Your task to perform on an android device: Find a nice sofa on eBay Image 0: 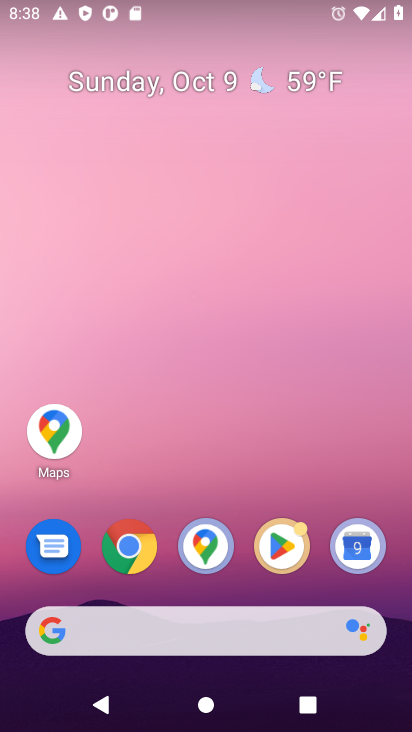
Step 0: click (133, 558)
Your task to perform on an android device: Find a nice sofa on eBay Image 1: 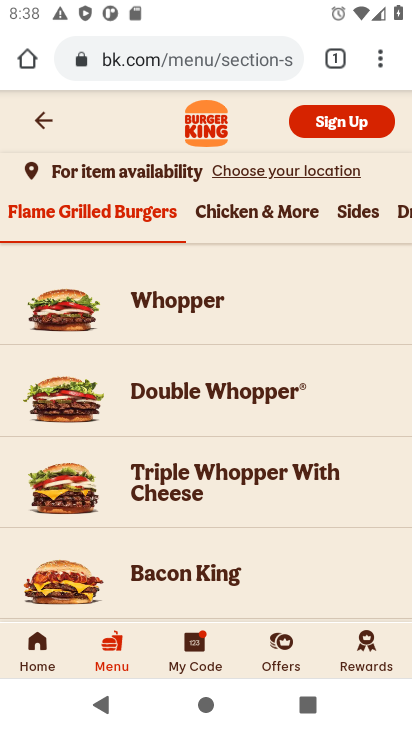
Step 1: click (231, 61)
Your task to perform on an android device: Find a nice sofa on eBay Image 2: 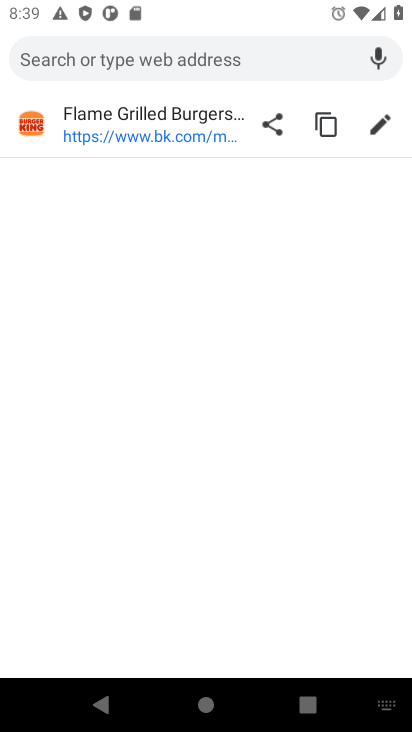
Step 2: type "ebay"
Your task to perform on an android device: Find a nice sofa on eBay Image 3: 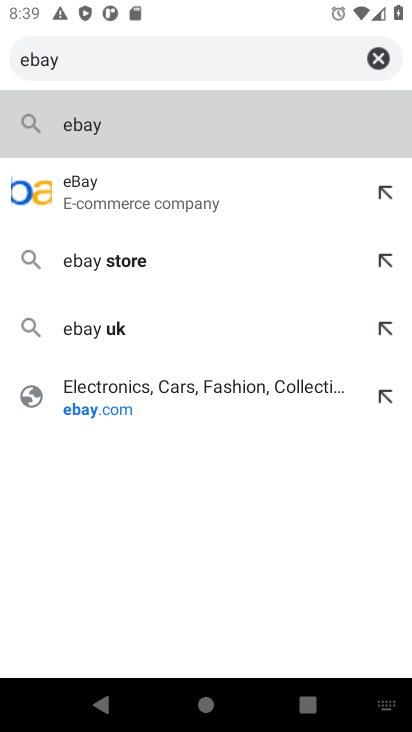
Step 3: type ""
Your task to perform on an android device: Find a nice sofa on eBay Image 4: 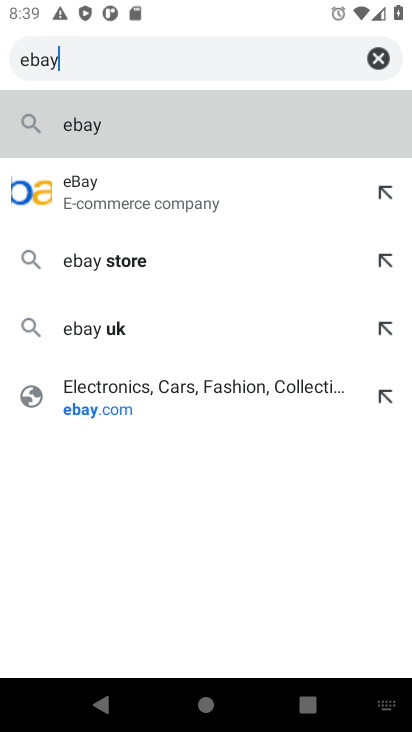
Step 4: press enter
Your task to perform on an android device: Find a nice sofa on eBay Image 5: 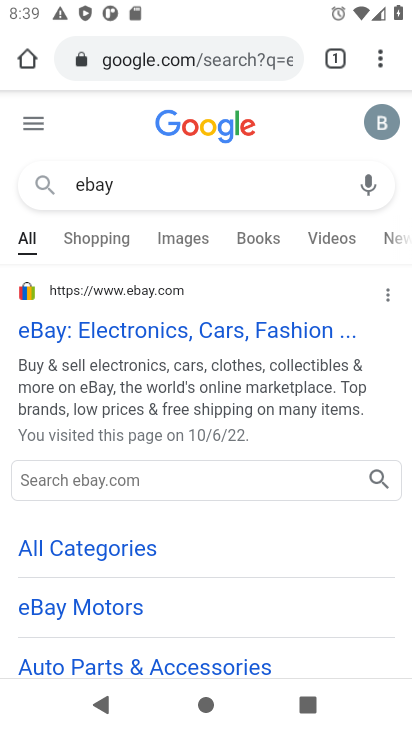
Step 5: click (116, 319)
Your task to perform on an android device: Find a nice sofa on eBay Image 6: 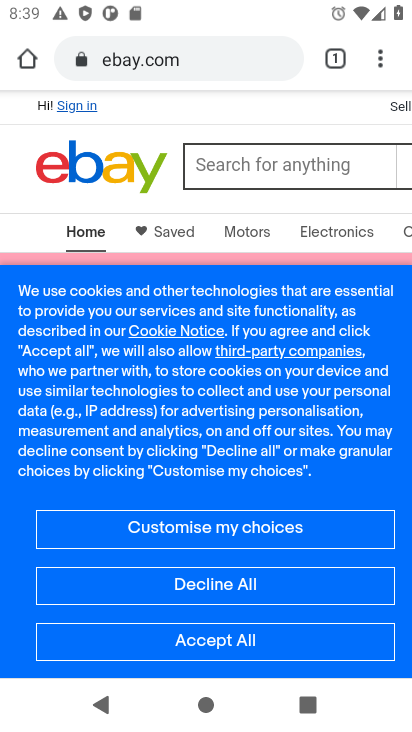
Step 6: click (293, 154)
Your task to perform on an android device: Find a nice sofa on eBay Image 7: 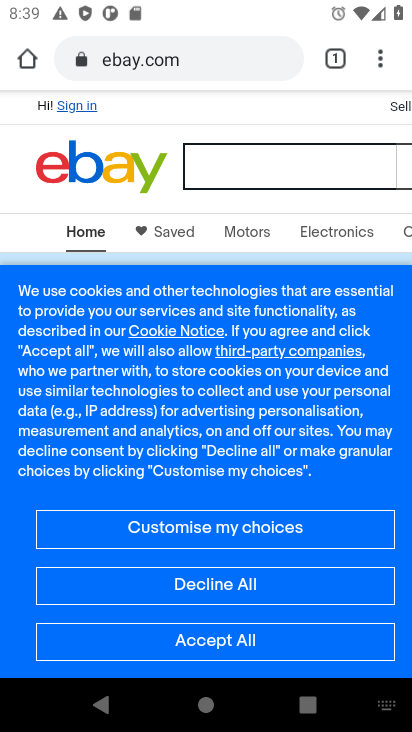
Step 7: click (270, 644)
Your task to perform on an android device: Find a nice sofa on eBay Image 8: 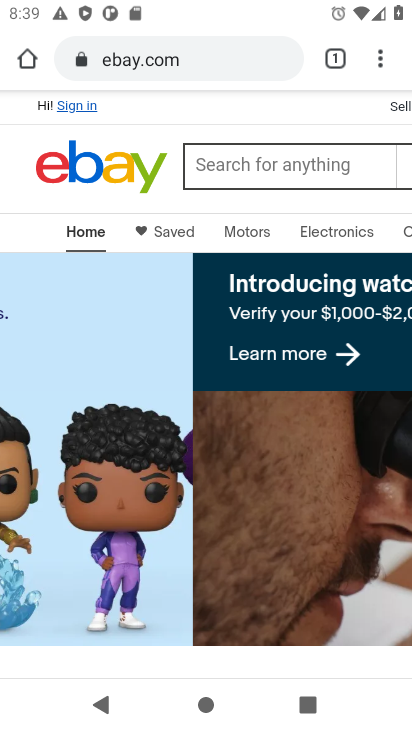
Step 8: click (288, 175)
Your task to perform on an android device: Find a nice sofa on eBay Image 9: 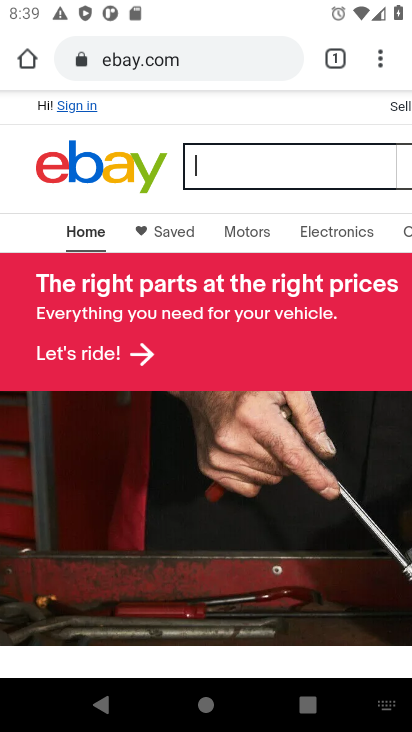
Step 9: type "sofa"
Your task to perform on an android device: Find a nice sofa on eBay Image 10: 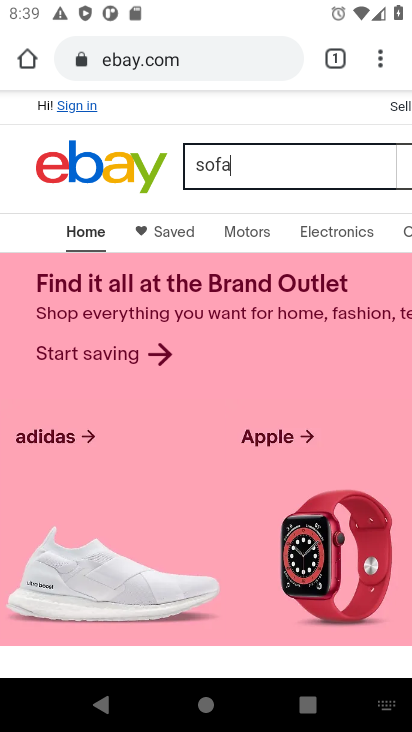
Step 10: type ""
Your task to perform on an android device: Find a nice sofa on eBay Image 11: 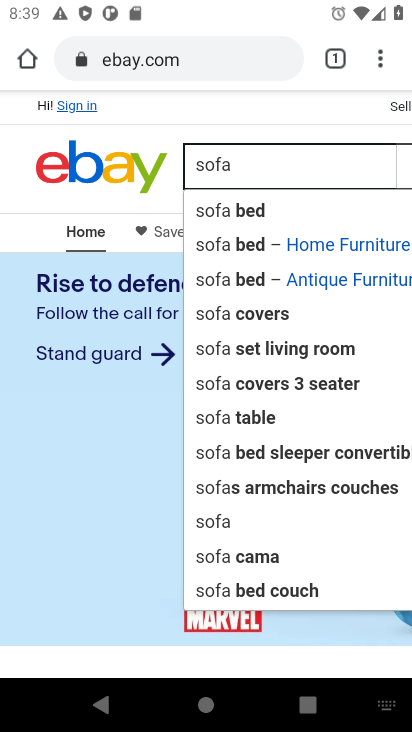
Step 11: press enter
Your task to perform on an android device: Find a nice sofa on eBay Image 12: 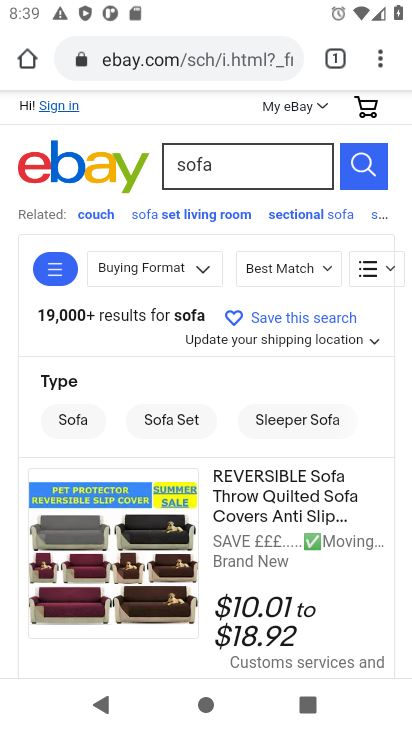
Step 12: drag from (222, 534) to (229, 342)
Your task to perform on an android device: Find a nice sofa on eBay Image 13: 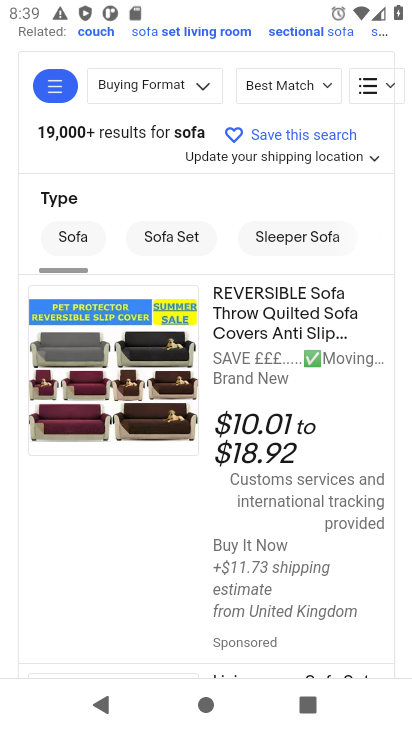
Step 13: drag from (250, 580) to (271, 338)
Your task to perform on an android device: Find a nice sofa on eBay Image 14: 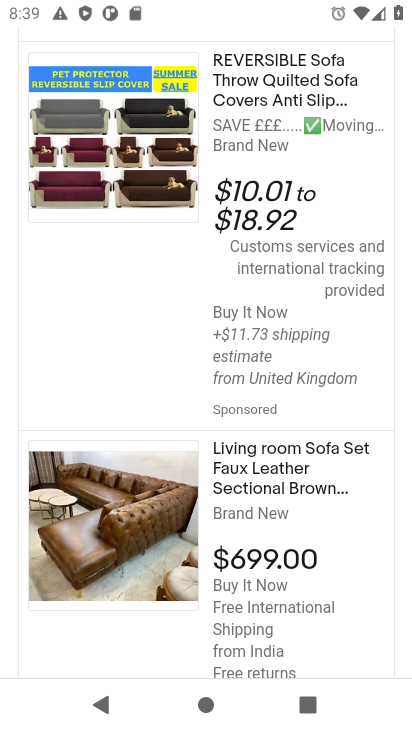
Step 14: drag from (272, 241) to (281, 460)
Your task to perform on an android device: Find a nice sofa on eBay Image 15: 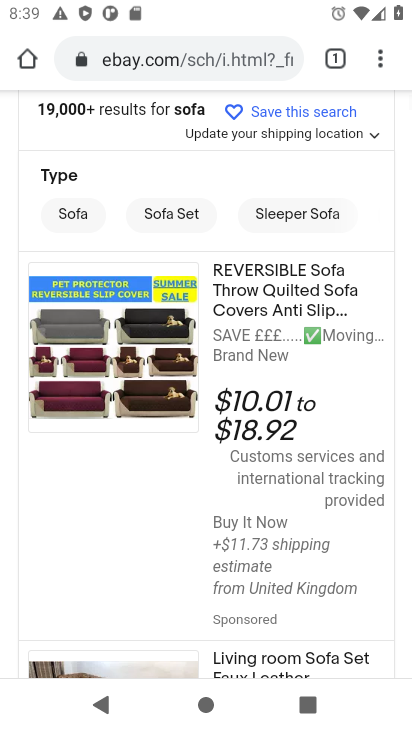
Step 15: drag from (288, 269) to (288, 480)
Your task to perform on an android device: Find a nice sofa on eBay Image 16: 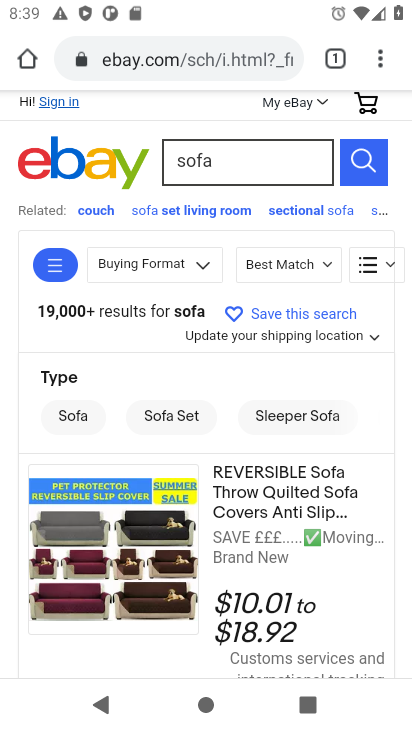
Step 16: click (295, 266)
Your task to perform on an android device: Find a nice sofa on eBay Image 17: 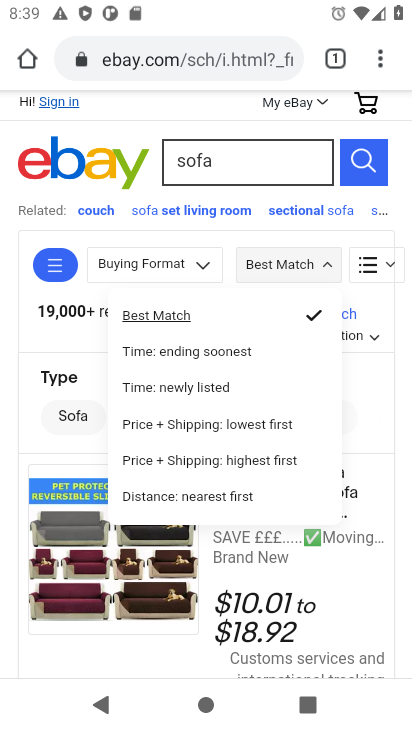
Step 17: click (349, 571)
Your task to perform on an android device: Find a nice sofa on eBay Image 18: 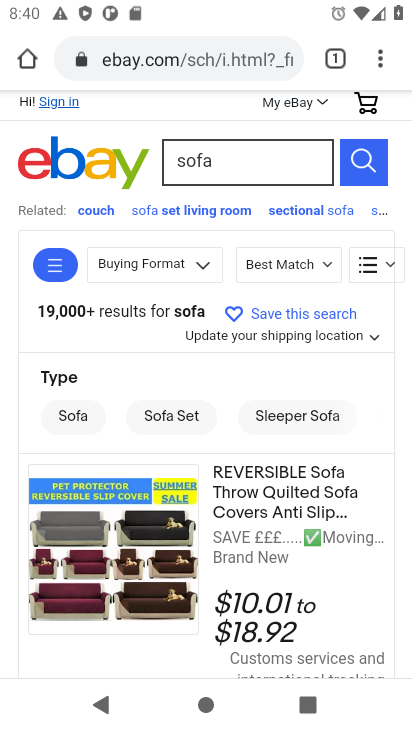
Step 18: task complete